Your task to perform on an android device: turn on airplane mode Image 0: 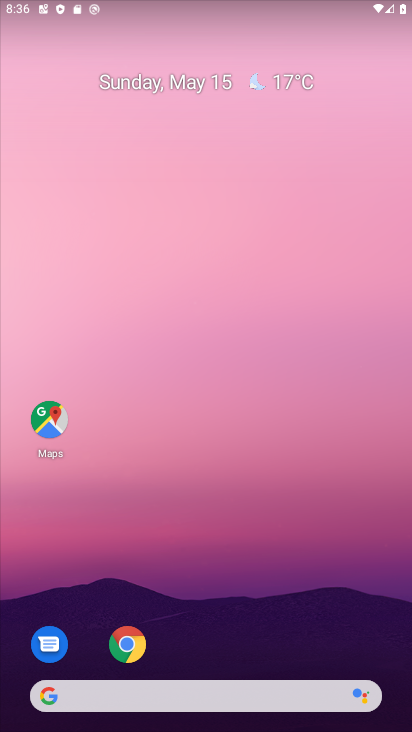
Step 0: drag from (222, 722) to (236, 334)
Your task to perform on an android device: turn on airplane mode Image 1: 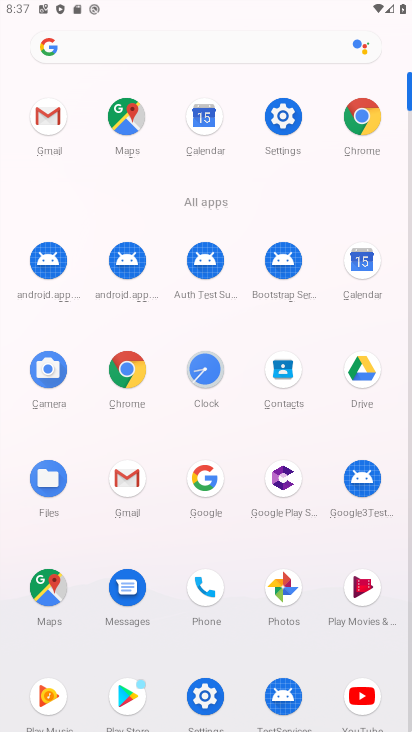
Step 1: click (274, 118)
Your task to perform on an android device: turn on airplane mode Image 2: 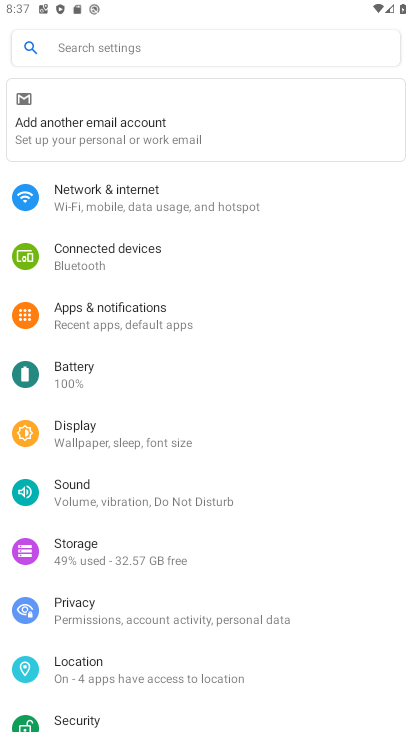
Step 2: click (131, 199)
Your task to perform on an android device: turn on airplane mode Image 3: 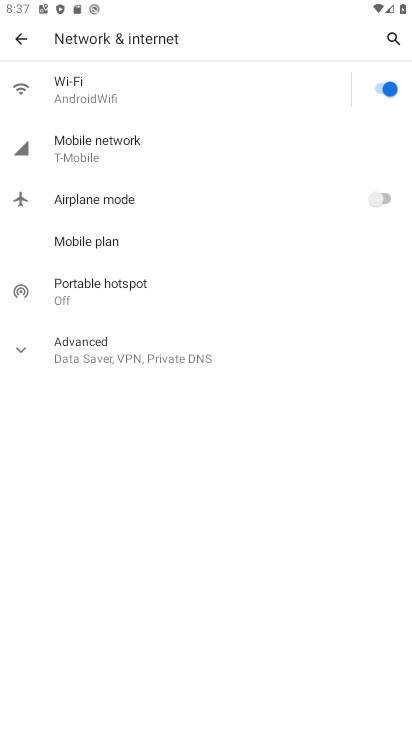
Step 3: click (140, 195)
Your task to perform on an android device: turn on airplane mode Image 4: 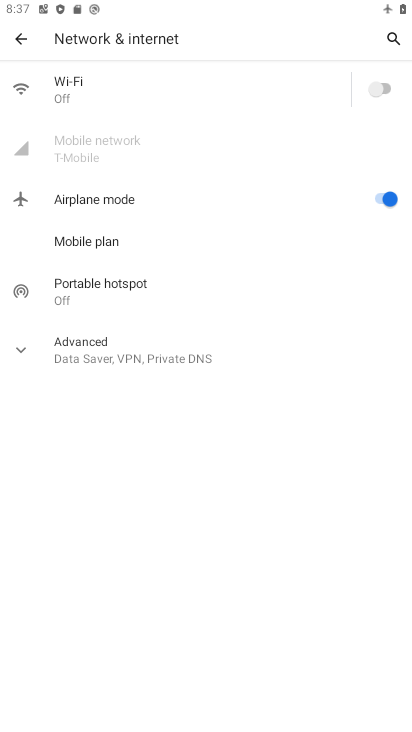
Step 4: task complete